Your task to perform on an android device: open wifi settings Image 0: 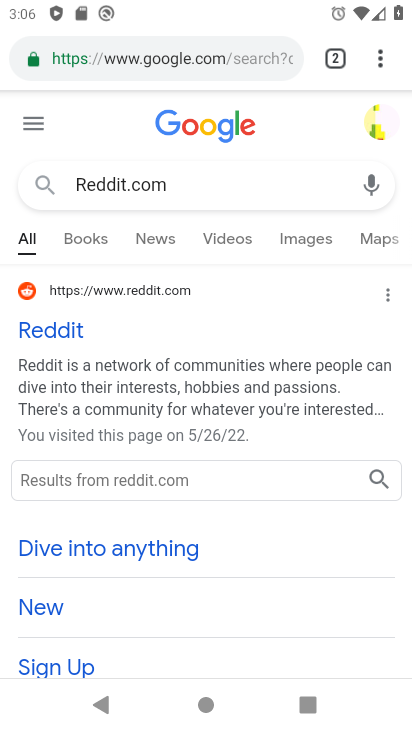
Step 0: press home button
Your task to perform on an android device: open wifi settings Image 1: 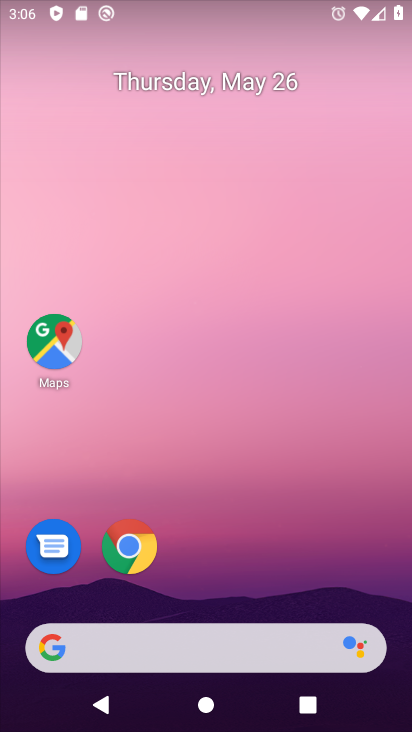
Step 1: drag from (395, 698) to (305, 147)
Your task to perform on an android device: open wifi settings Image 2: 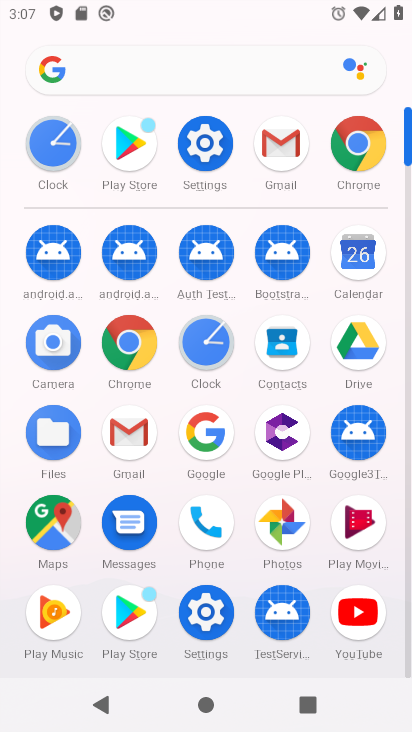
Step 2: click (196, 602)
Your task to perform on an android device: open wifi settings Image 3: 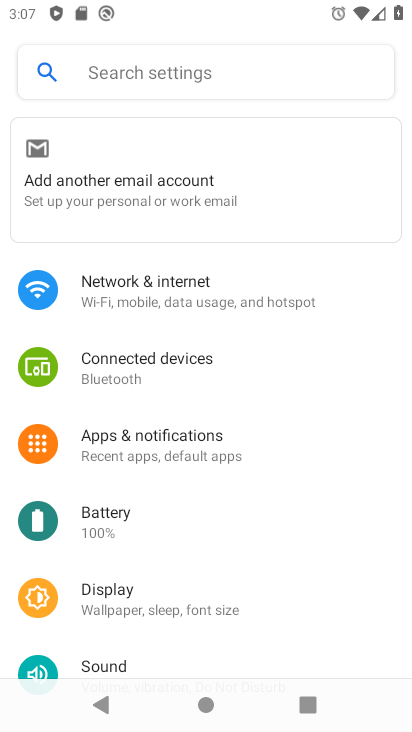
Step 3: click (124, 282)
Your task to perform on an android device: open wifi settings Image 4: 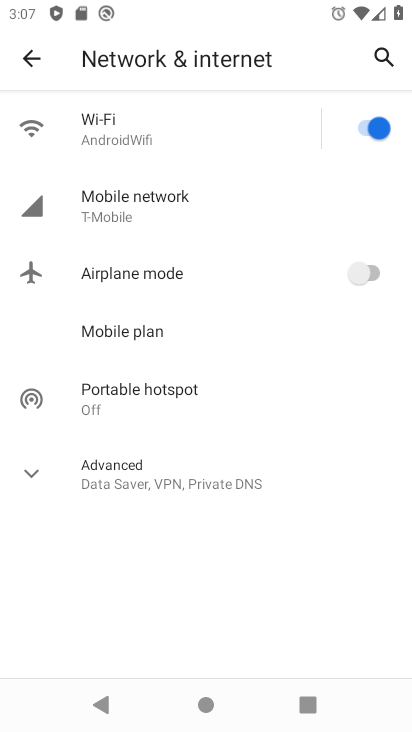
Step 4: click (234, 141)
Your task to perform on an android device: open wifi settings Image 5: 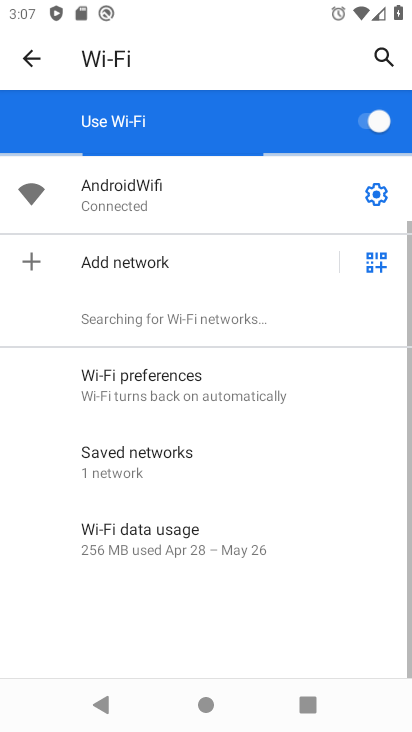
Step 5: click (376, 184)
Your task to perform on an android device: open wifi settings Image 6: 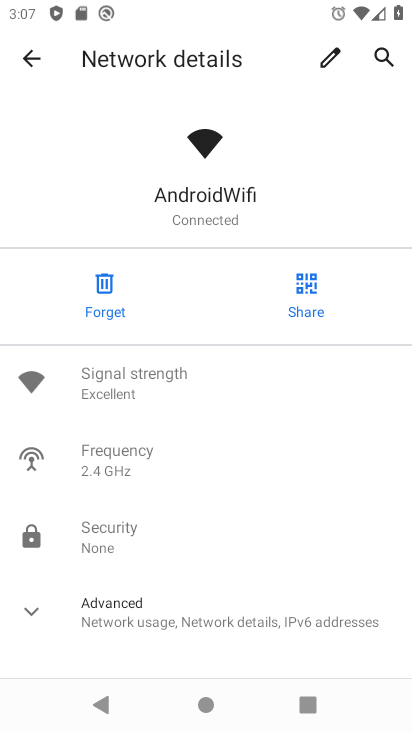
Step 6: task complete